Your task to perform on an android device: check storage Image 0: 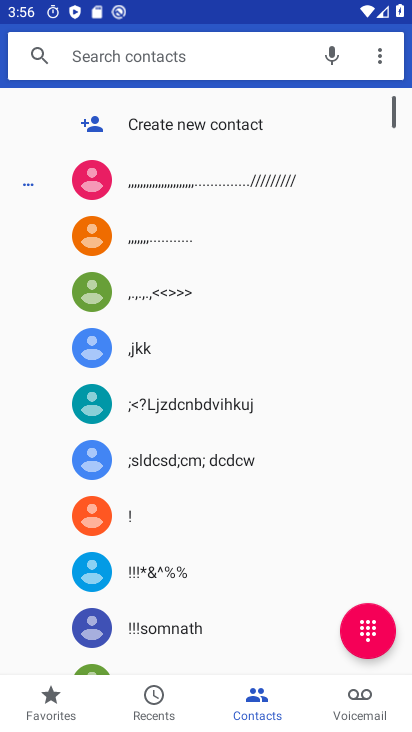
Step 0: press home button
Your task to perform on an android device: check storage Image 1: 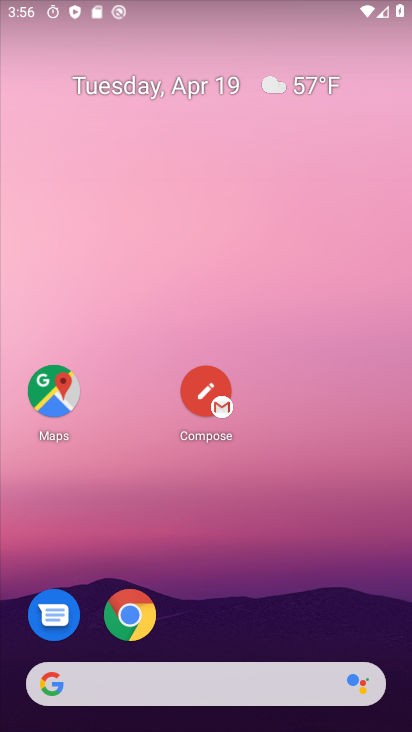
Step 1: drag from (169, 598) to (228, 110)
Your task to perform on an android device: check storage Image 2: 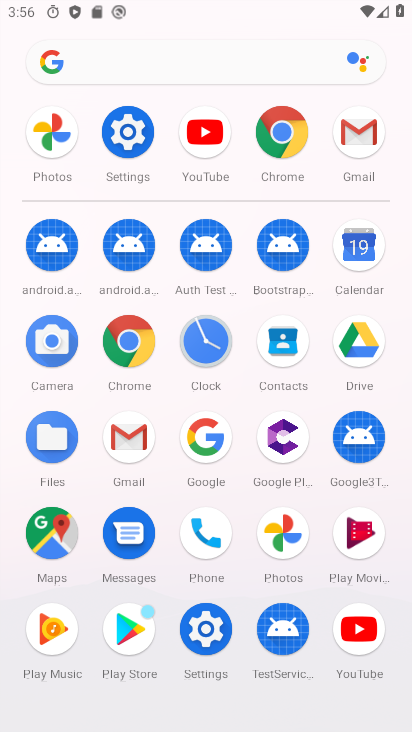
Step 2: click (206, 628)
Your task to perform on an android device: check storage Image 3: 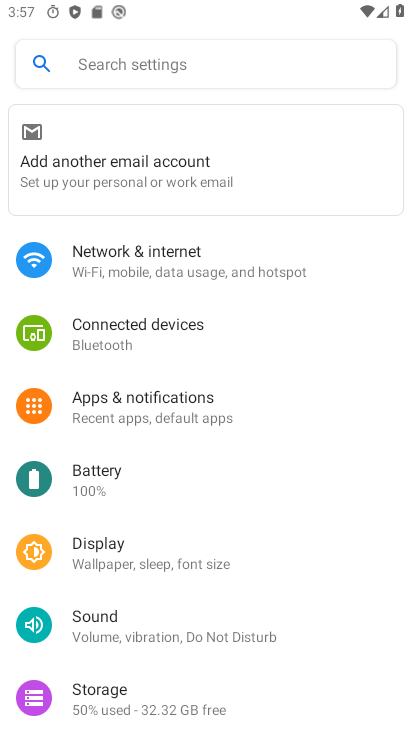
Step 3: click (143, 693)
Your task to perform on an android device: check storage Image 4: 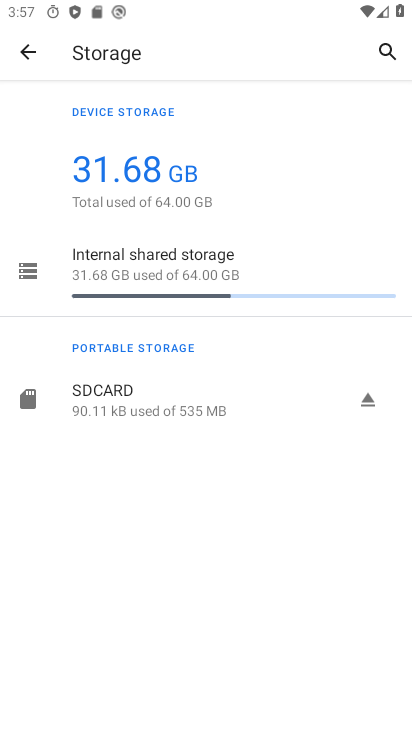
Step 4: task complete